Your task to perform on an android device: change keyboard looks Image 0: 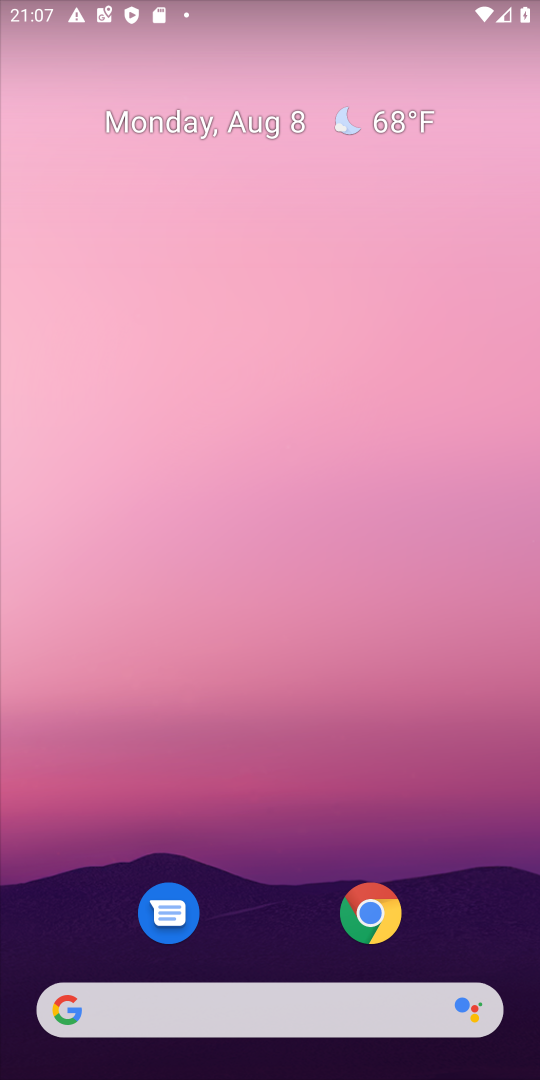
Step 0: drag from (246, 930) to (311, 80)
Your task to perform on an android device: change keyboard looks Image 1: 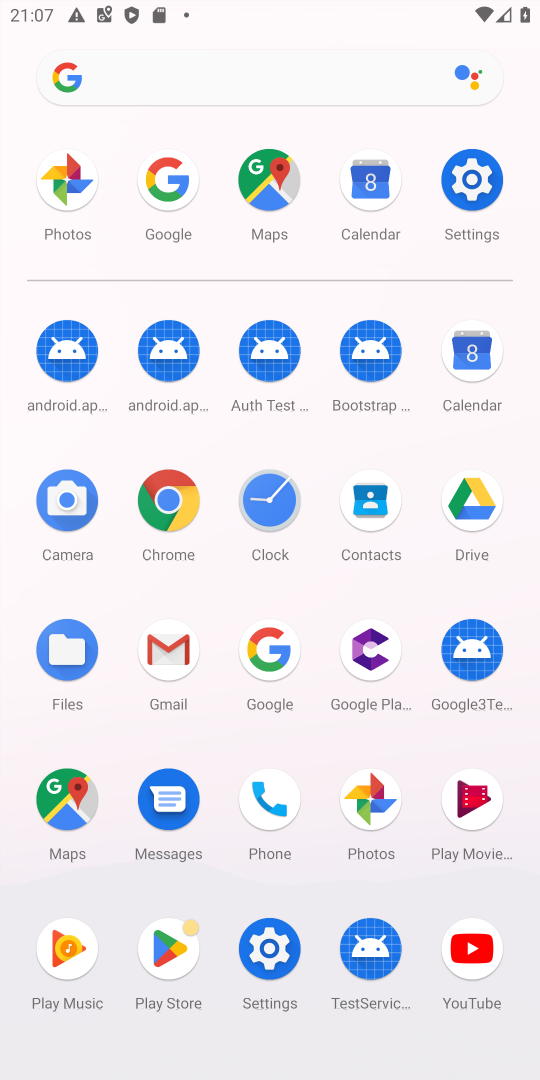
Step 1: click (469, 179)
Your task to perform on an android device: change keyboard looks Image 2: 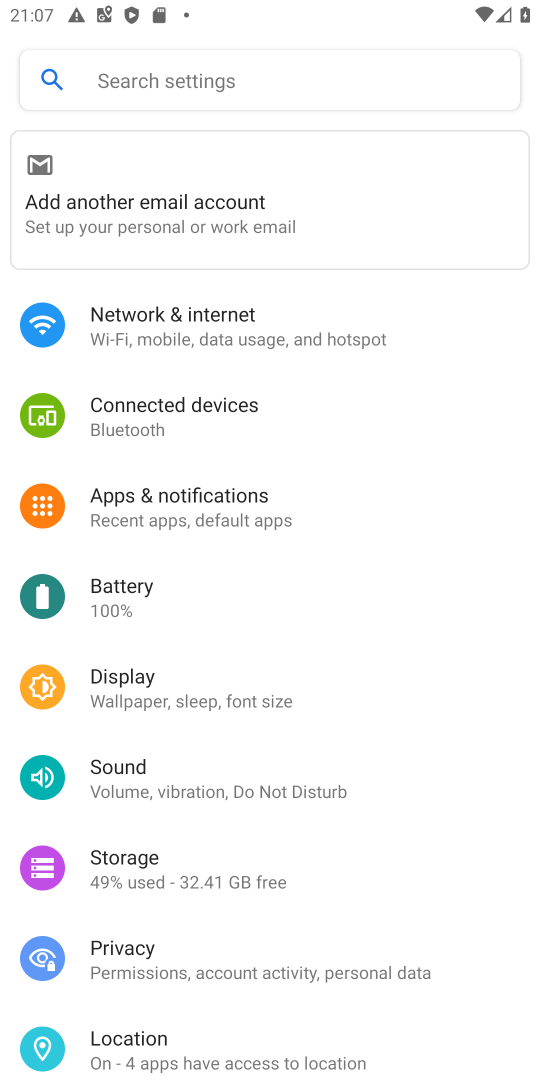
Step 2: drag from (155, 610) to (311, 376)
Your task to perform on an android device: change keyboard looks Image 3: 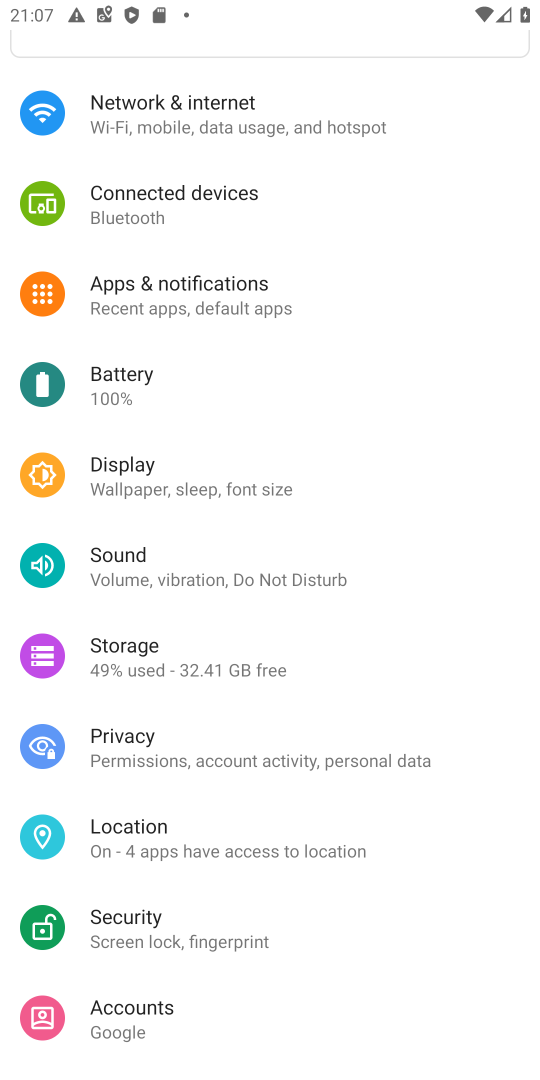
Step 3: drag from (154, 615) to (283, 463)
Your task to perform on an android device: change keyboard looks Image 4: 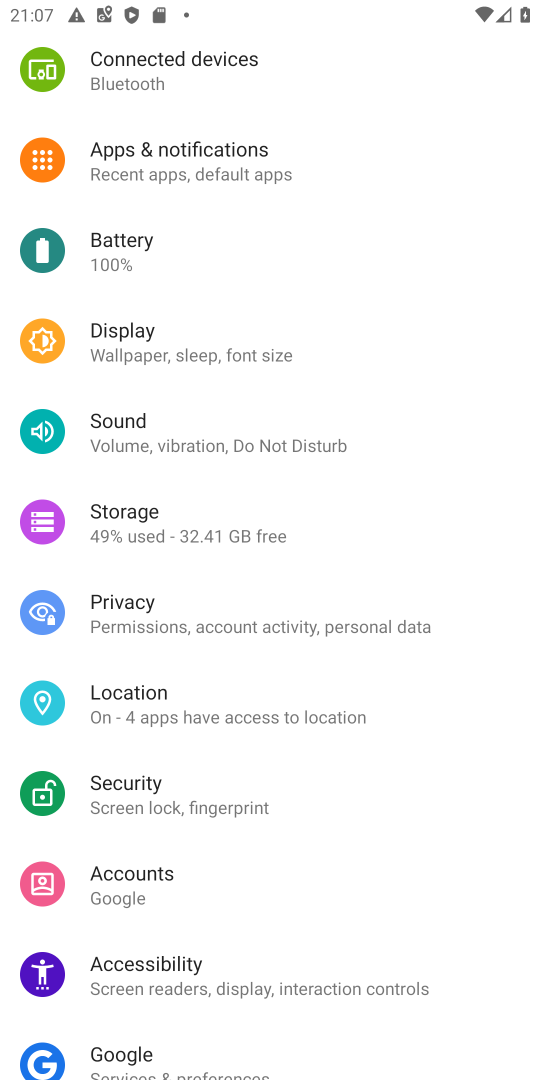
Step 4: drag from (138, 652) to (311, 396)
Your task to perform on an android device: change keyboard looks Image 5: 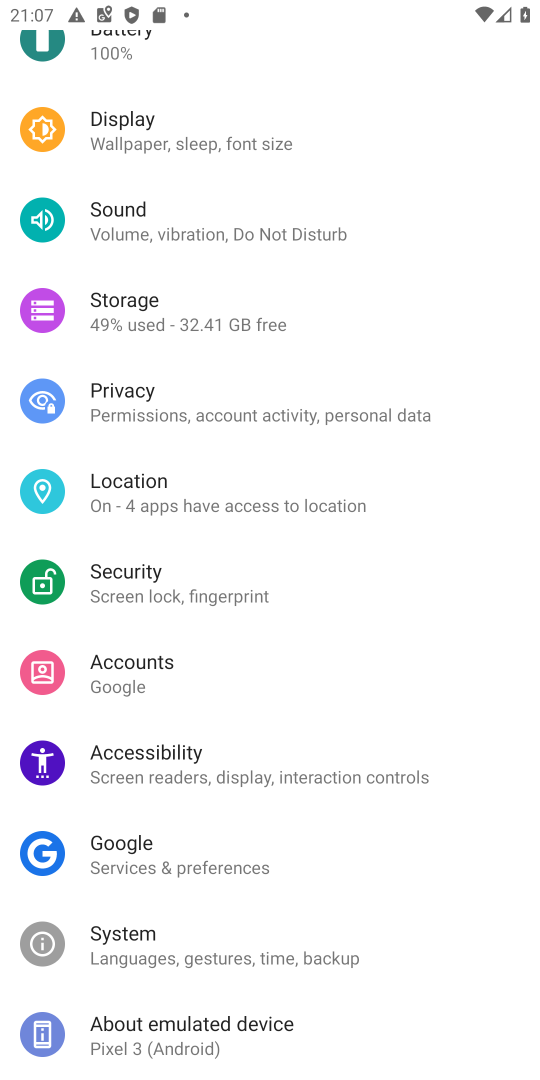
Step 5: click (197, 954)
Your task to perform on an android device: change keyboard looks Image 6: 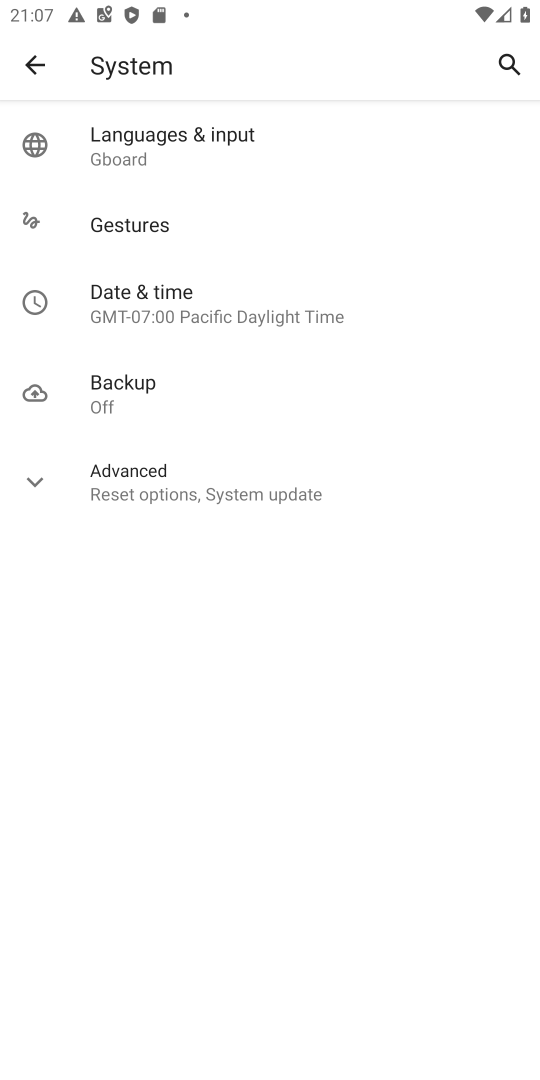
Step 6: click (111, 147)
Your task to perform on an android device: change keyboard looks Image 7: 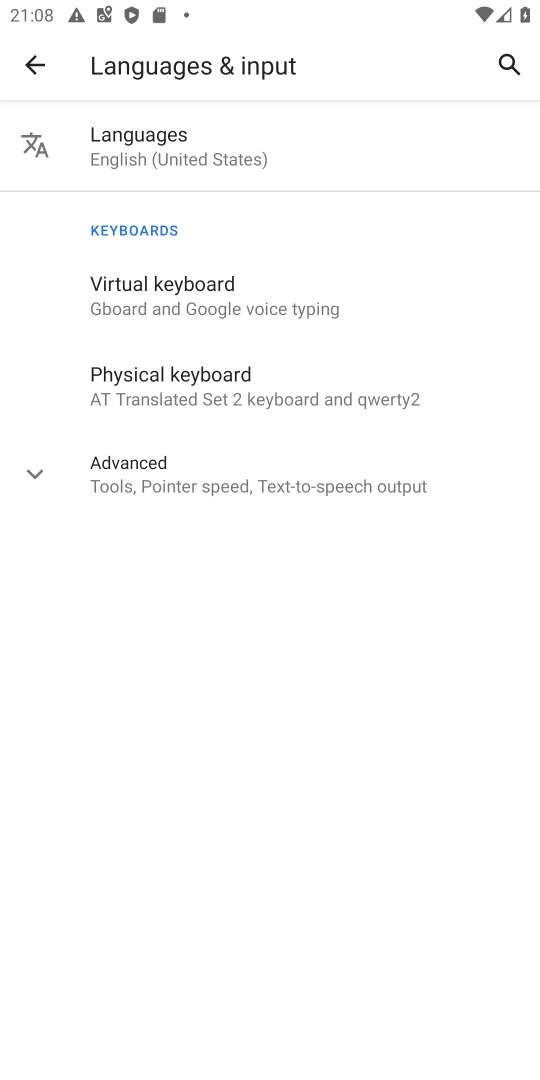
Step 7: click (177, 307)
Your task to perform on an android device: change keyboard looks Image 8: 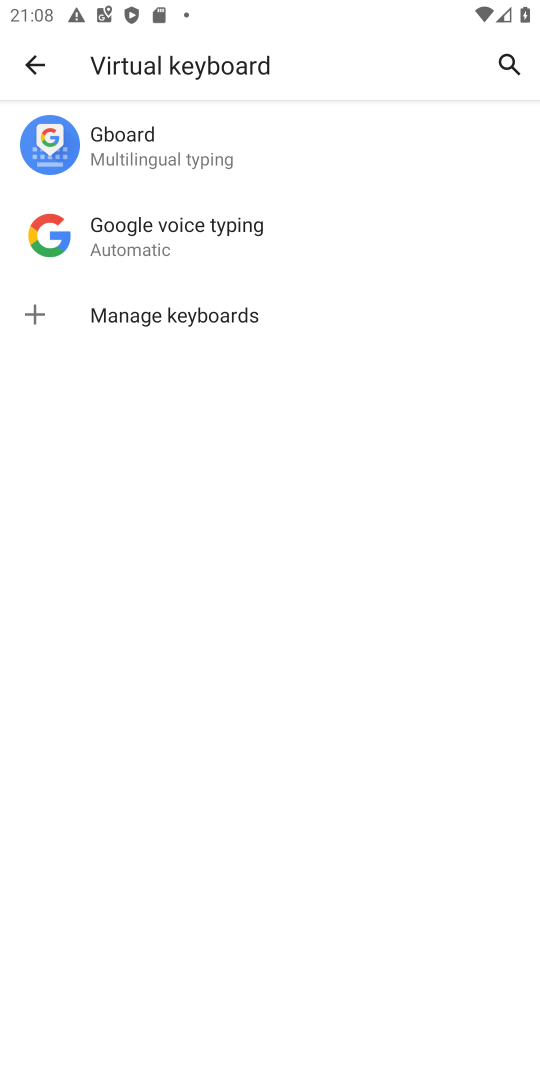
Step 8: click (149, 146)
Your task to perform on an android device: change keyboard looks Image 9: 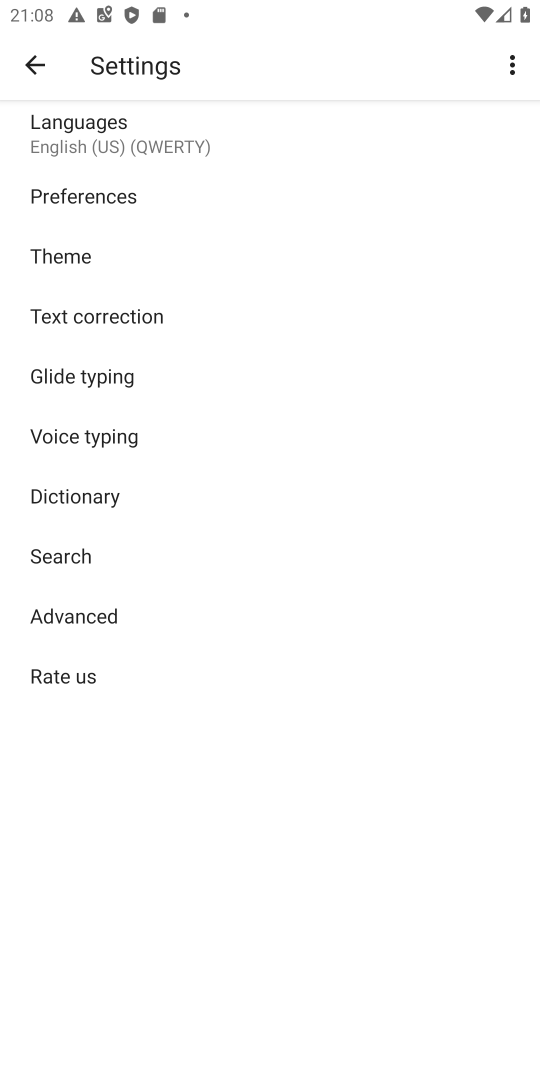
Step 9: click (90, 254)
Your task to perform on an android device: change keyboard looks Image 10: 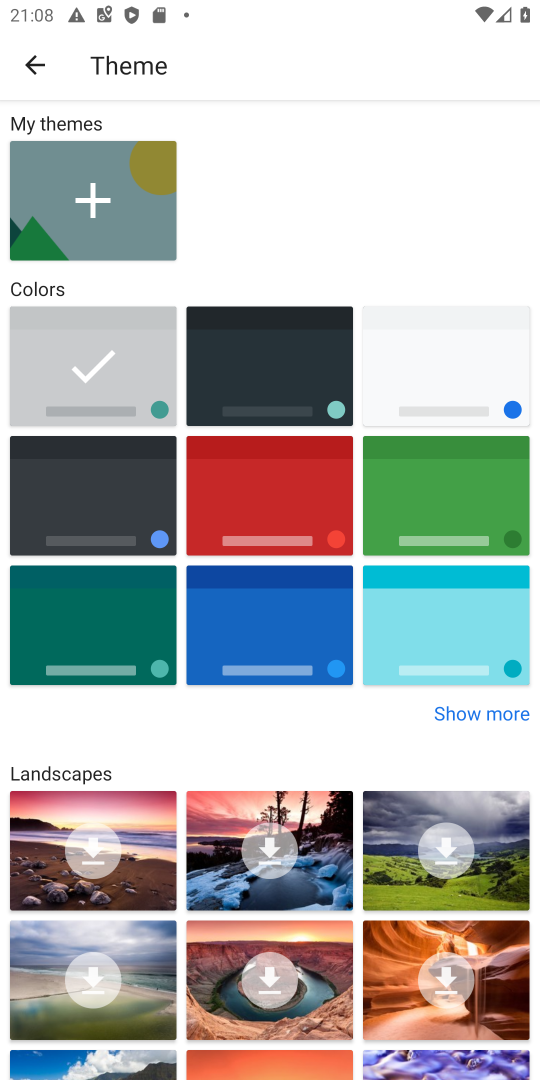
Step 10: click (271, 492)
Your task to perform on an android device: change keyboard looks Image 11: 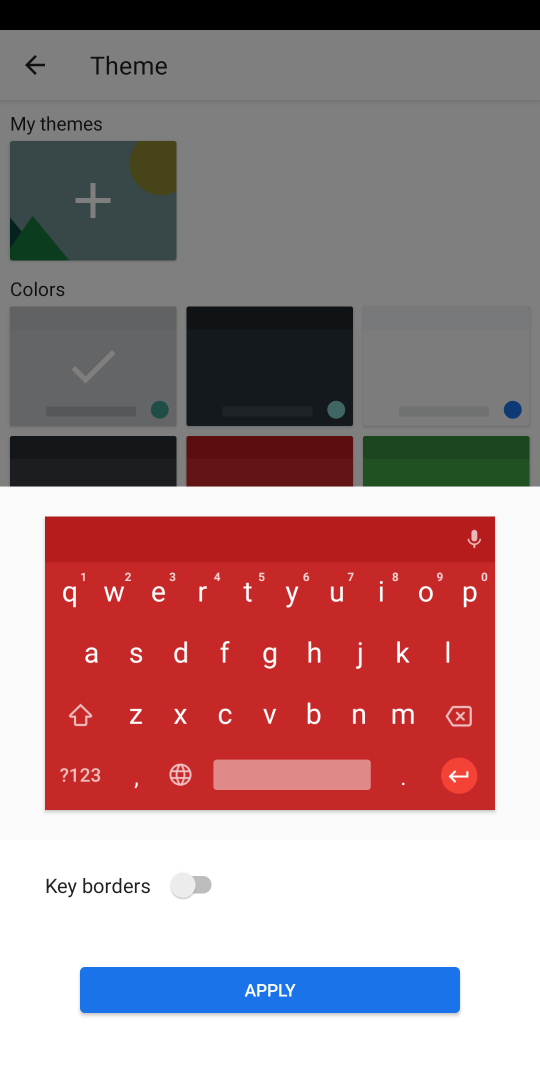
Step 11: click (199, 889)
Your task to perform on an android device: change keyboard looks Image 12: 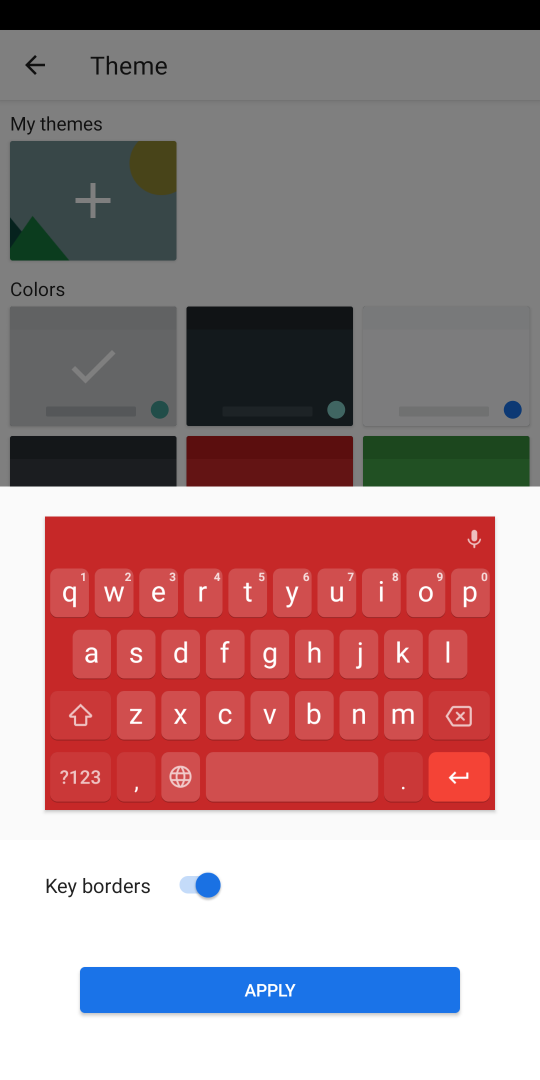
Step 12: click (273, 993)
Your task to perform on an android device: change keyboard looks Image 13: 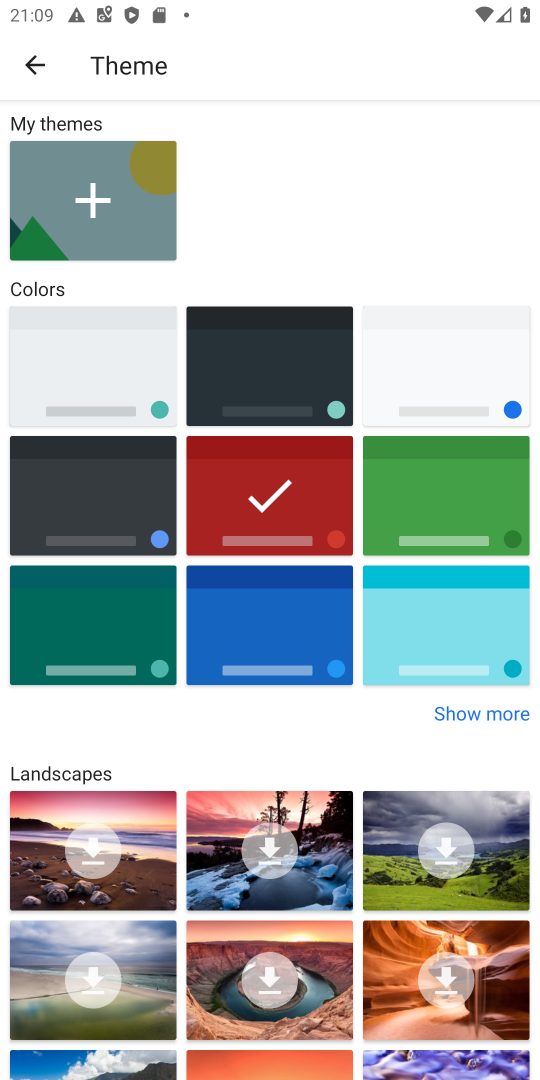
Step 13: task complete